Your task to perform on an android device: Open Reddit.com Image 0: 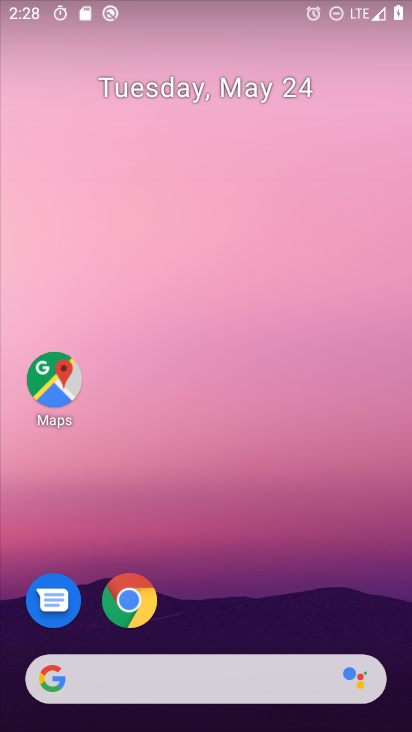
Step 0: drag from (280, 495) to (311, 165)
Your task to perform on an android device: Open Reddit.com Image 1: 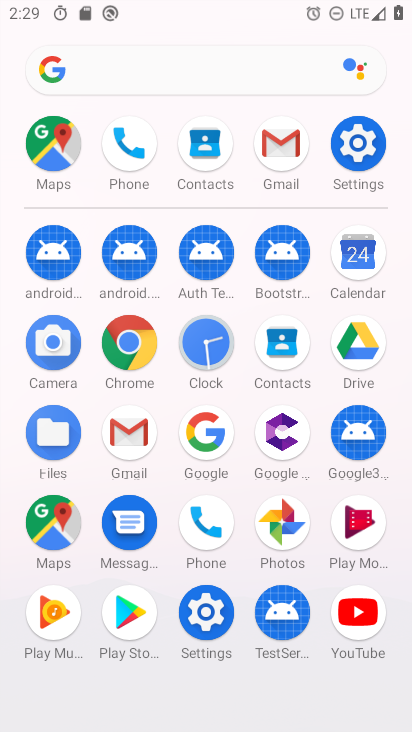
Step 1: click (126, 346)
Your task to perform on an android device: Open Reddit.com Image 2: 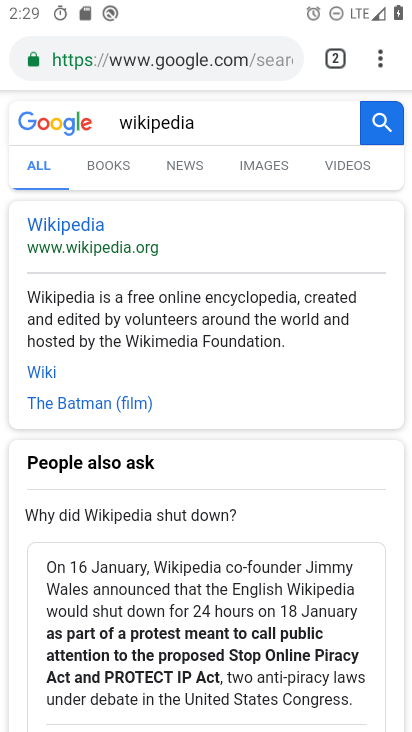
Step 2: click (171, 76)
Your task to perform on an android device: Open Reddit.com Image 3: 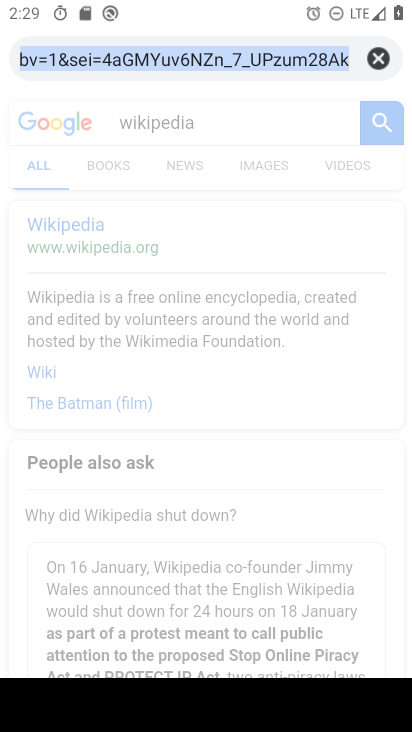
Step 3: type "reddit.com"
Your task to perform on an android device: Open Reddit.com Image 4: 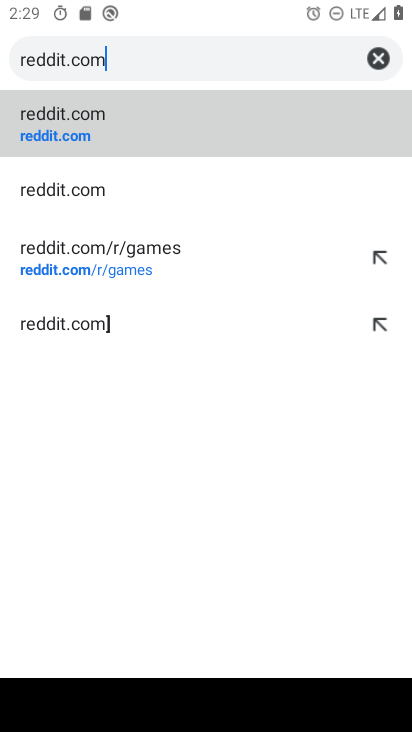
Step 4: click (74, 139)
Your task to perform on an android device: Open Reddit.com Image 5: 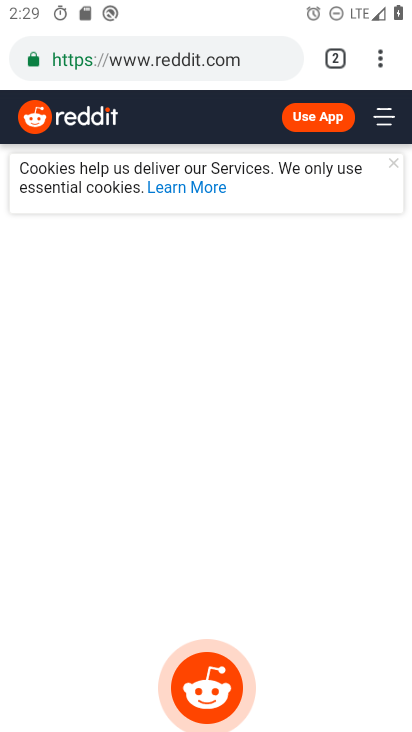
Step 5: task complete